Your task to perform on an android device: Search for handmade jewelry on Etsy. Image 0: 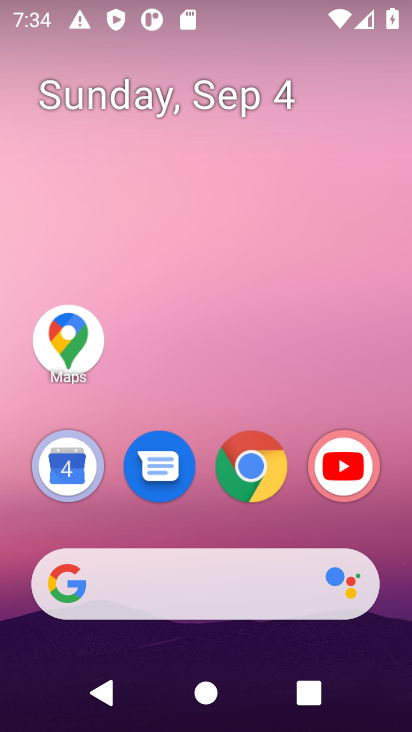
Step 0: click (235, 7)
Your task to perform on an android device: Search for handmade jewelry on Etsy. Image 1: 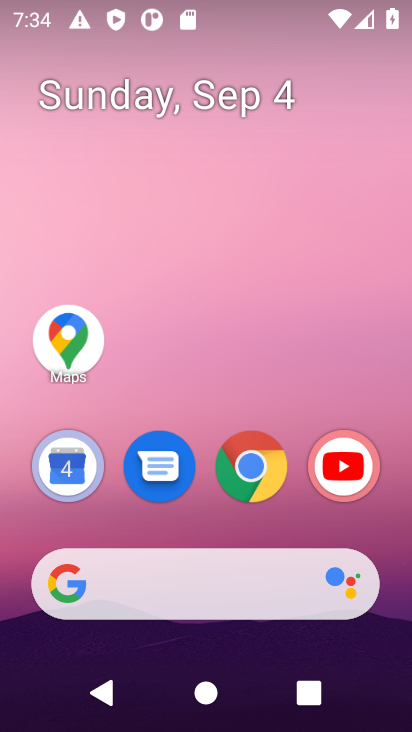
Step 1: drag from (223, 383) to (234, 1)
Your task to perform on an android device: Search for handmade jewelry on Etsy. Image 2: 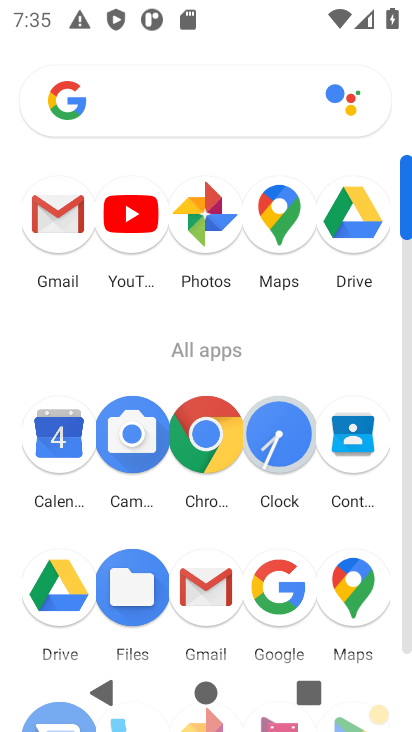
Step 2: click (197, 429)
Your task to perform on an android device: Search for handmade jewelry on Etsy. Image 3: 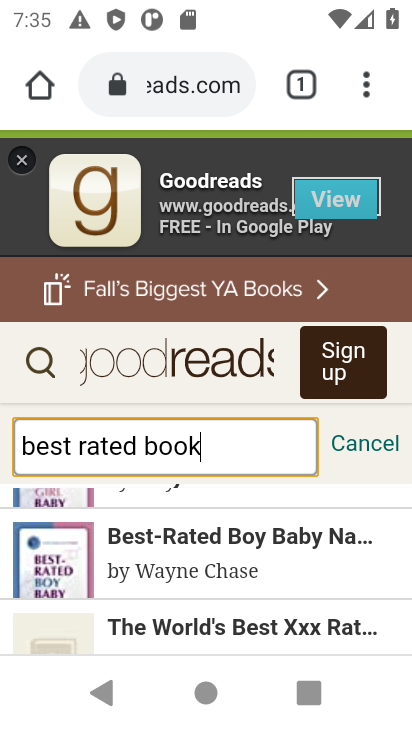
Step 3: drag from (364, 92) to (84, 172)
Your task to perform on an android device: Search for handmade jewelry on Etsy. Image 4: 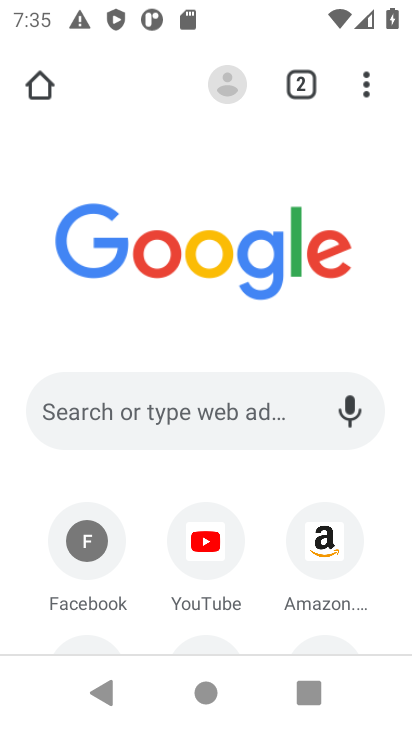
Step 4: click (188, 422)
Your task to perform on an android device: Search for handmade jewelry on Etsy. Image 5: 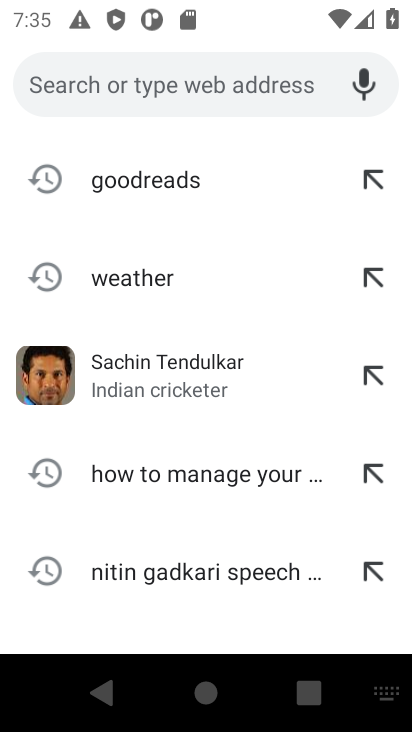
Step 5: click (170, 86)
Your task to perform on an android device: Search for handmade jewelry on Etsy. Image 6: 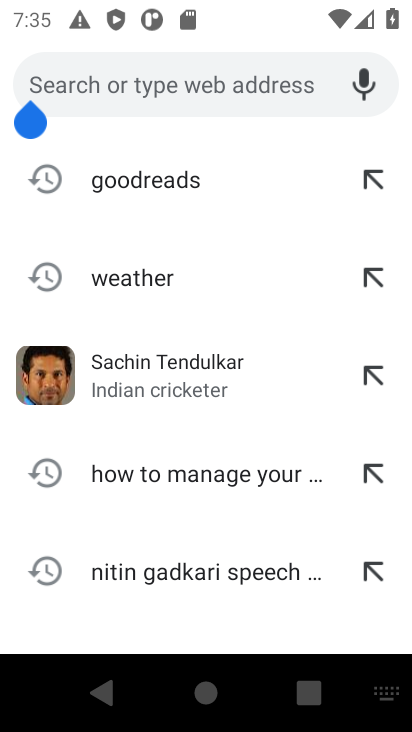
Step 6: type ""
Your task to perform on an android device: Search for handmade jewelry on Etsy. Image 7: 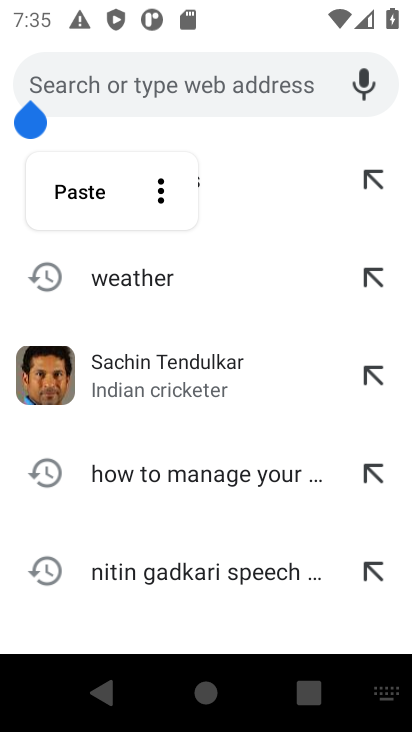
Step 7: type ""
Your task to perform on an android device: Search for handmade jewelry on Etsy. Image 8: 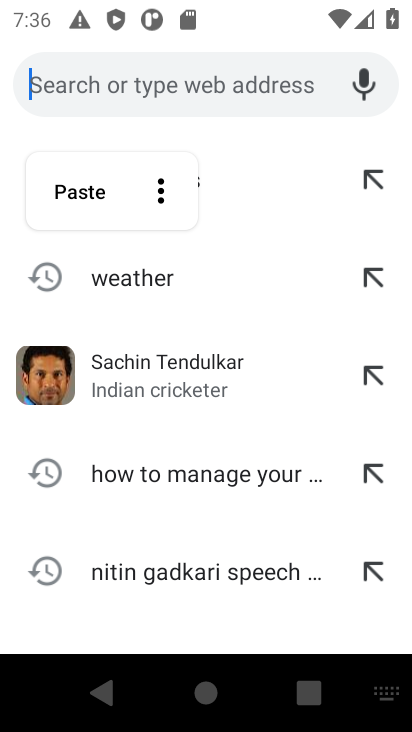
Step 8: type "Etsy"
Your task to perform on an android device: Search for handmade jewelry on Etsy. Image 9: 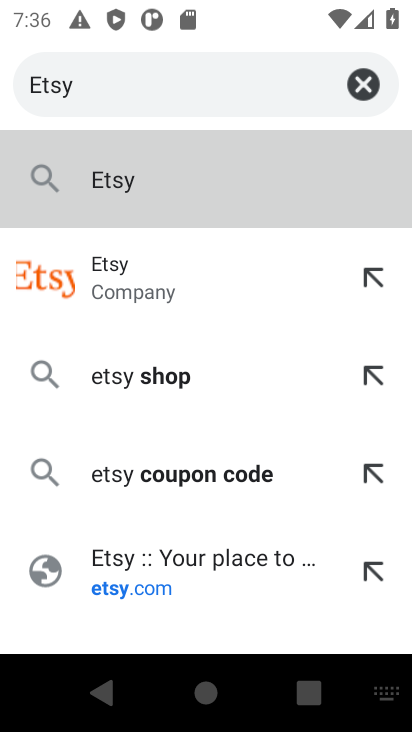
Step 9: click (116, 274)
Your task to perform on an android device: Search for handmade jewelry on Etsy. Image 10: 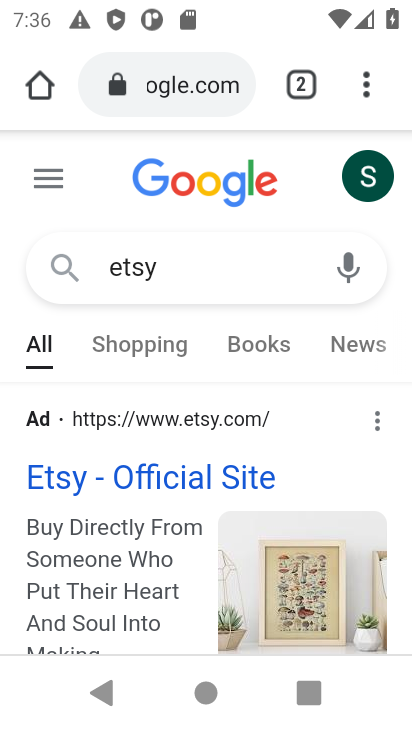
Step 10: click (173, 480)
Your task to perform on an android device: Search for handmade jewelry on Etsy. Image 11: 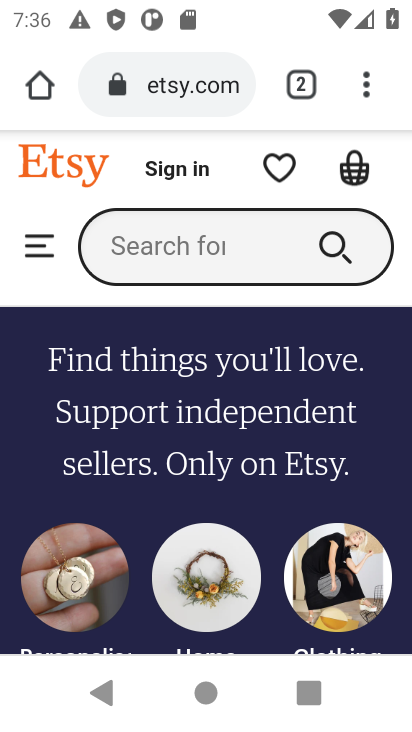
Step 11: click (202, 245)
Your task to perform on an android device: Search for handmade jewelry on Etsy. Image 12: 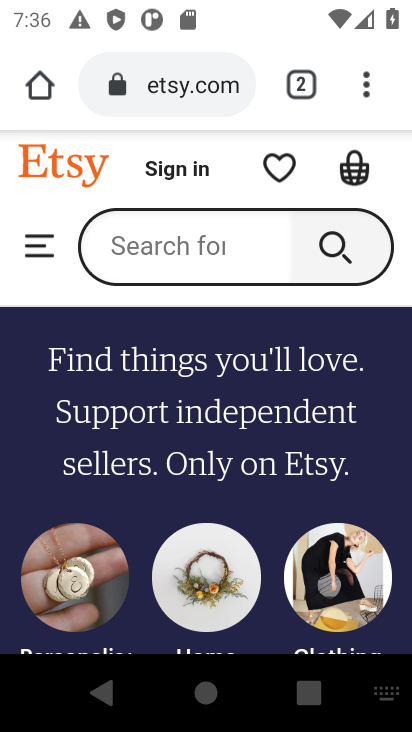
Step 12: type "handmade jewelry"
Your task to perform on an android device: Search for handmade jewelry on Etsy. Image 13: 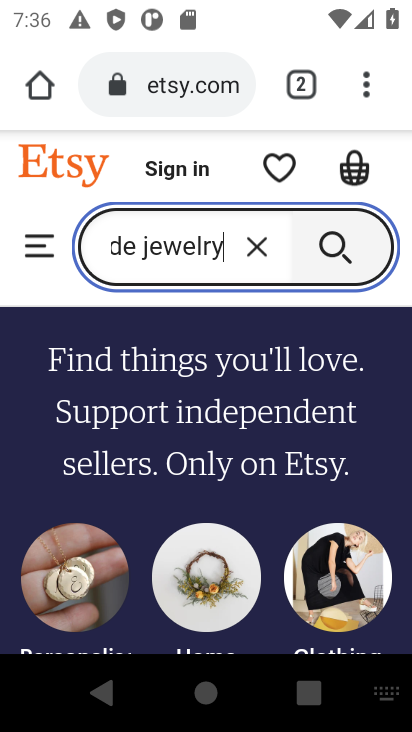
Step 13: type ""
Your task to perform on an android device: Search for handmade jewelry on Etsy. Image 14: 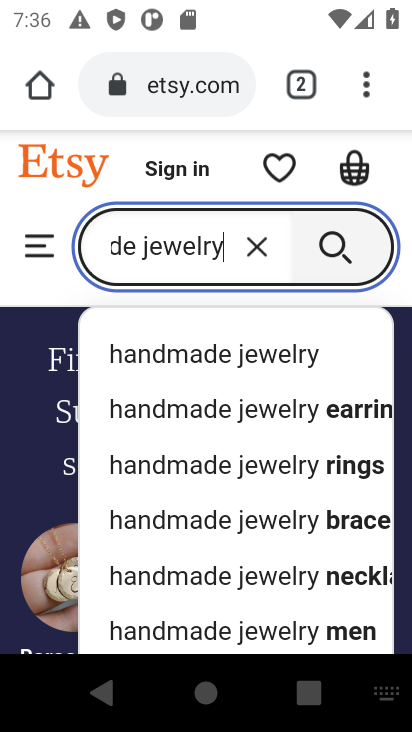
Step 14: click (283, 351)
Your task to perform on an android device: Search for handmade jewelry on Etsy. Image 15: 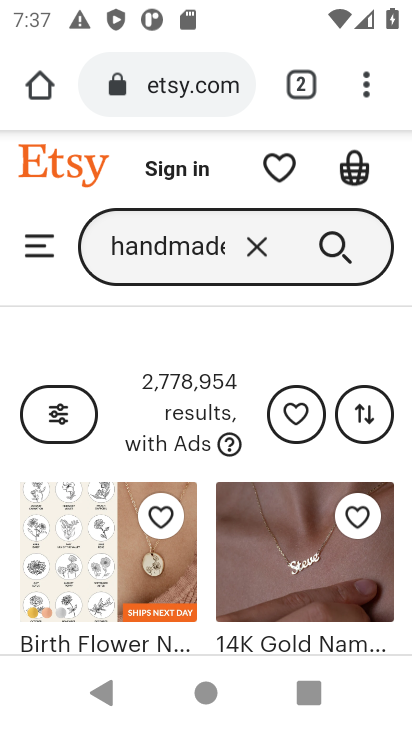
Step 15: task complete